Your task to perform on an android device: What's the news in Brazil? Image 0: 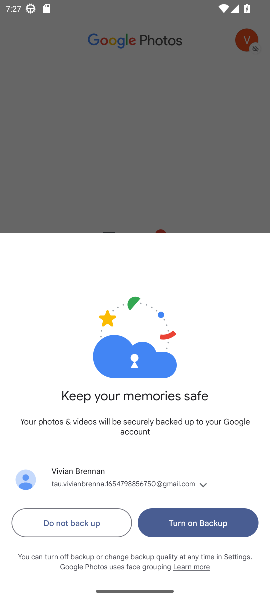
Step 0: press home button
Your task to perform on an android device: What's the news in Brazil? Image 1: 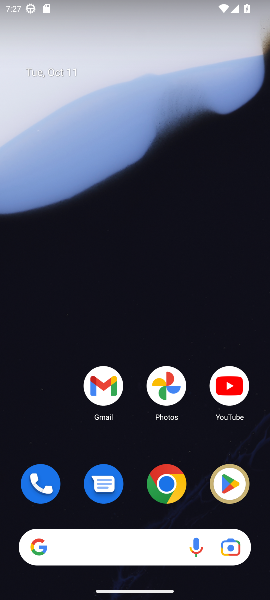
Step 1: click (165, 480)
Your task to perform on an android device: What's the news in Brazil? Image 2: 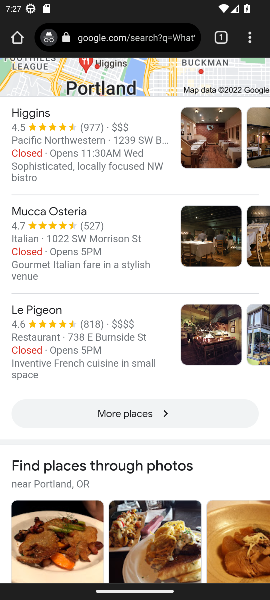
Step 2: click (152, 37)
Your task to perform on an android device: What's the news in Brazil? Image 3: 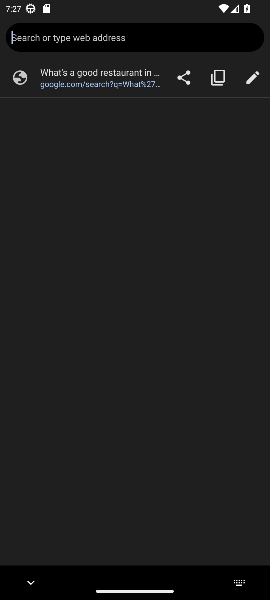
Step 3: type "What's the news in Brazil?"
Your task to perform on an android device: What's the news in Brazil? Image 4: 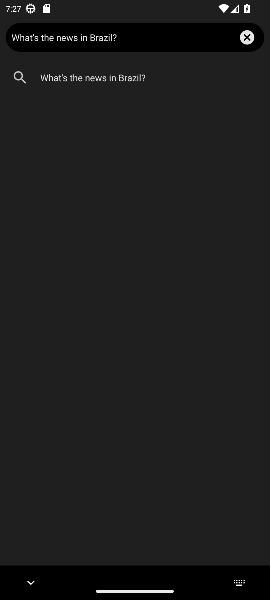
Step 4: click (132, 81)
Your task to perform on an android device: What's the news in Brazil? Image 5: 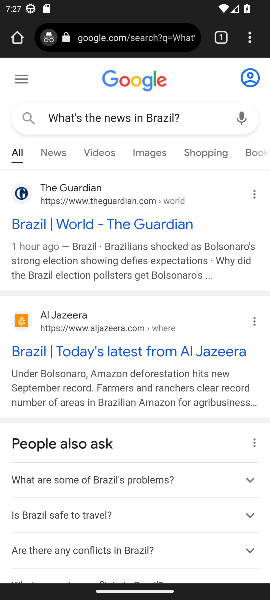
Step 5: click (113, 346)
Your task to perform on an android device: What's the news in Brazil? Image 6: 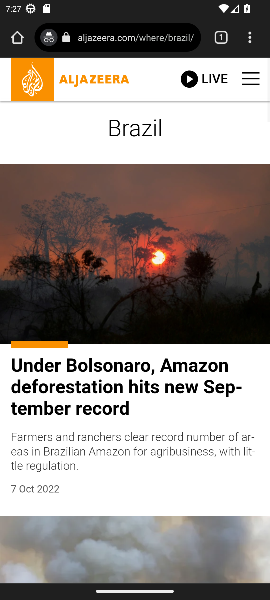
Step 6: drag from (128, 466) to (204, 306)
Your task to perform on an android device: What's the news in Brazil? Image 7: 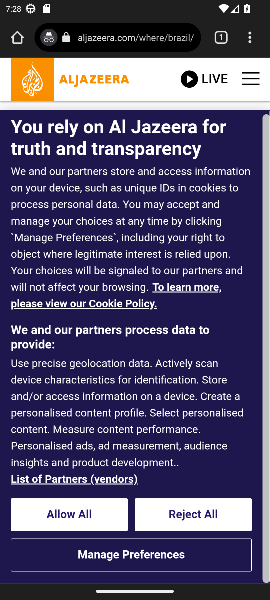
Step 7: click (60, 513)
Your task to perform on an android device: What's the news in Brazil? Image 8: 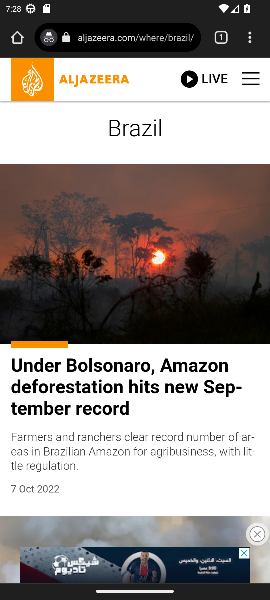
Step 8: task complete